Your task to perform on an android device: open the mobile data screen to see how much data has been used Image 0: 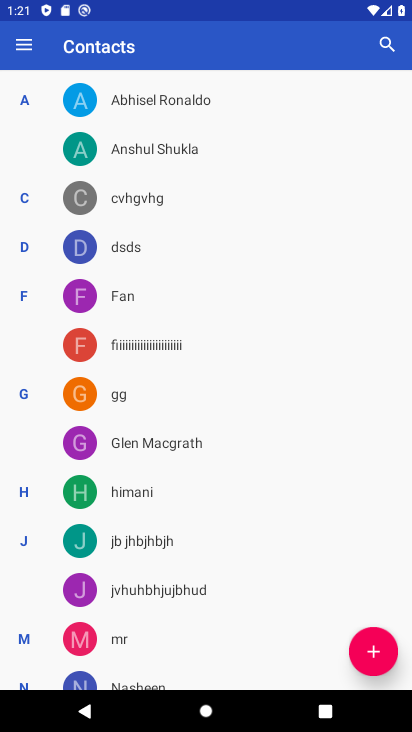
Step 0: press home button
Your task to perform on an android device: open the mobile data screen to see how much data has been used Image 1: 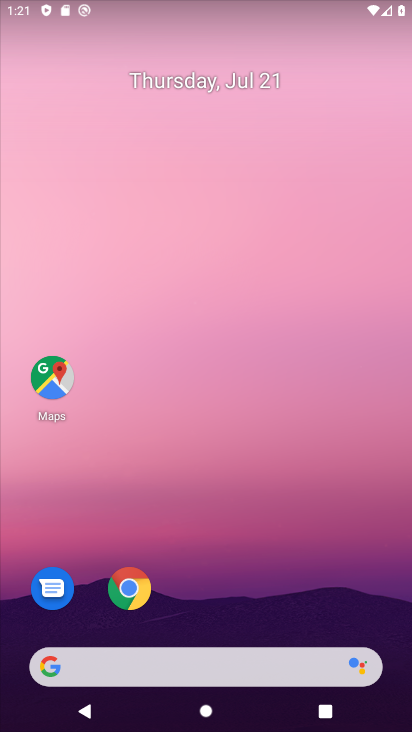
Step 1: drag from (233, 629) to (189, 92)
Your task to perform on an android device: open the mobile data screen to see how much data has been used Image 2: 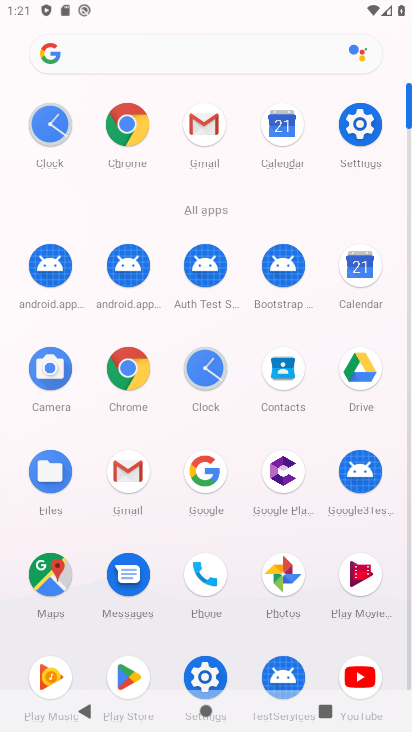
Step 2: click (351, 131)
Your task to perform on an android device: open the mobile data screen to see how much data has been used Image 3: 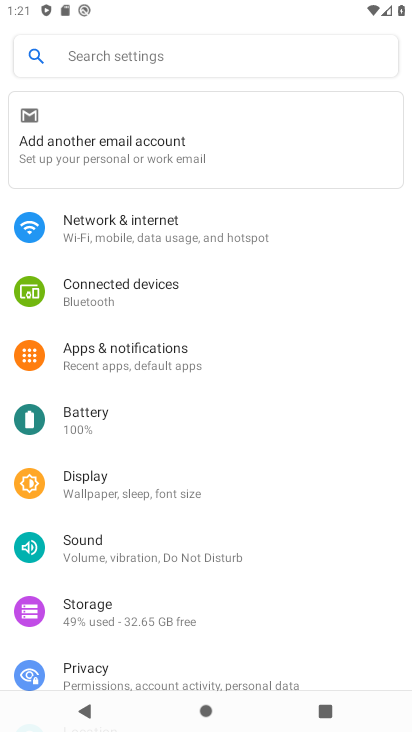
Step 3: click (122, 241)
Your task to perform on an android device: open the mobile data screen to see how much data has been used Image 4: 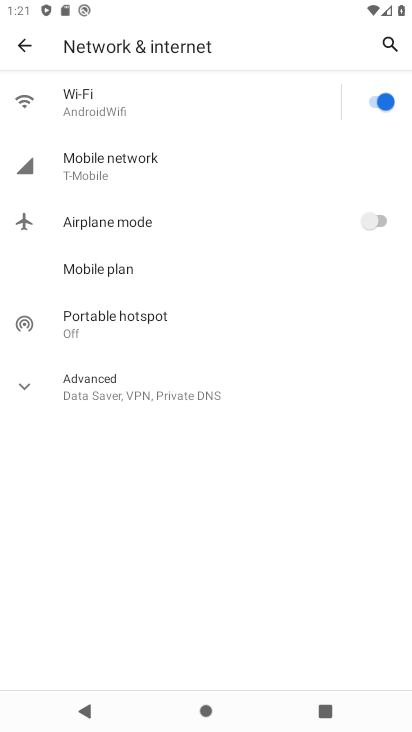
Step 4: click (92, 161)
Your task to perform on an android device: open the mobile data screen to see how much data has been used Image 5: 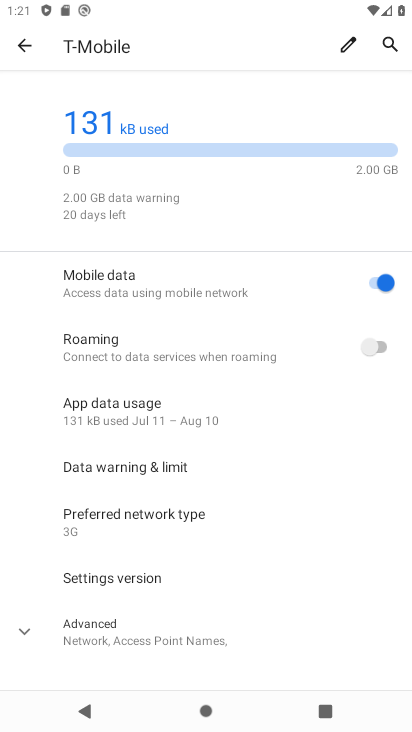
Step 5: task complete